Your task to perform on an android device: move a message to another label in the gmail app Image 0: 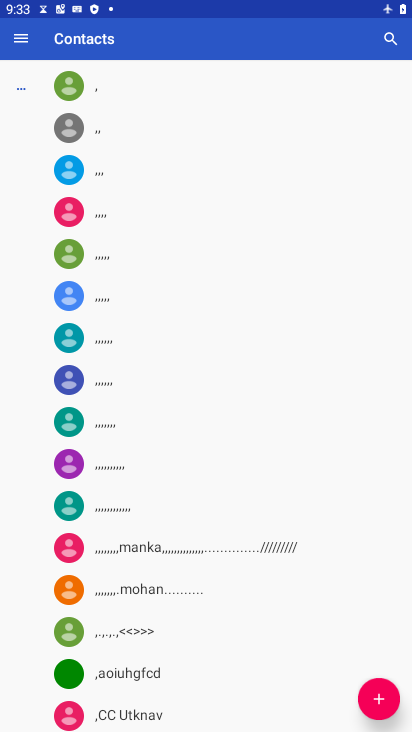
Step 0: press home button
Your task to perform on an android device: move a message to another label in the gmail app Image 1: 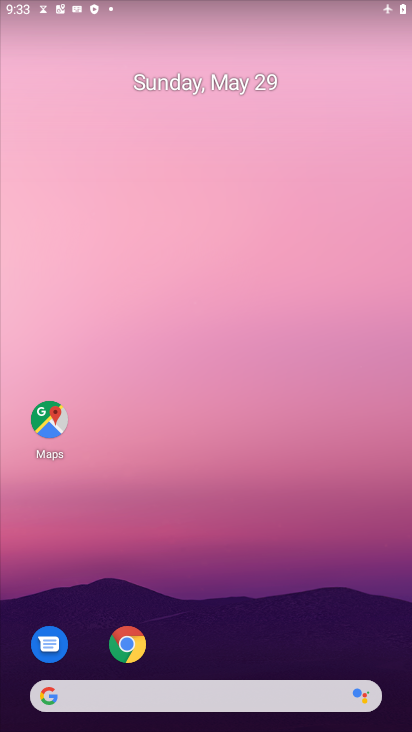
Step 1: drag from (189, 656) to (170, 255)
Your task to perform on an android device: move a message to another label in the gmail app Image 2: 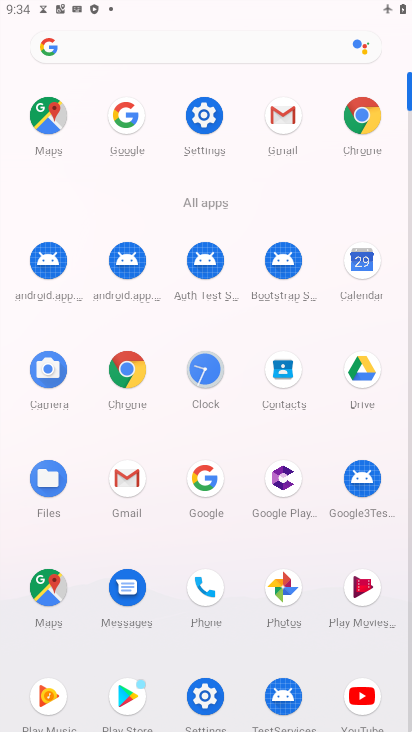
Step 2: click (128, 478)
Your task to perform on an android device: move a message to another label in the gmail app Image 3: 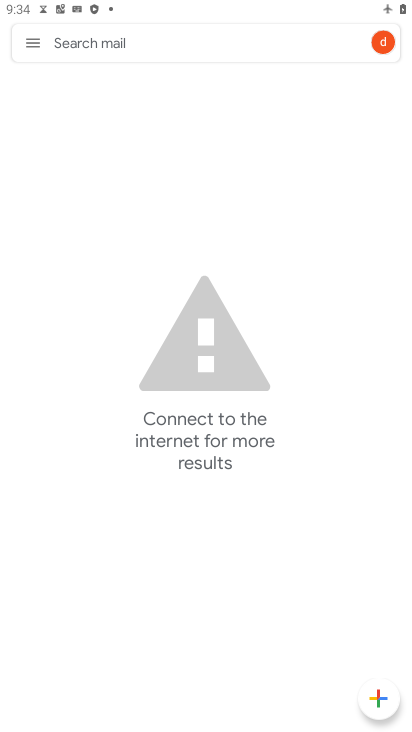
Step 3: click (31, 43)
Your task to perform on an android device: move a message to another label in the gmail app Image 4: 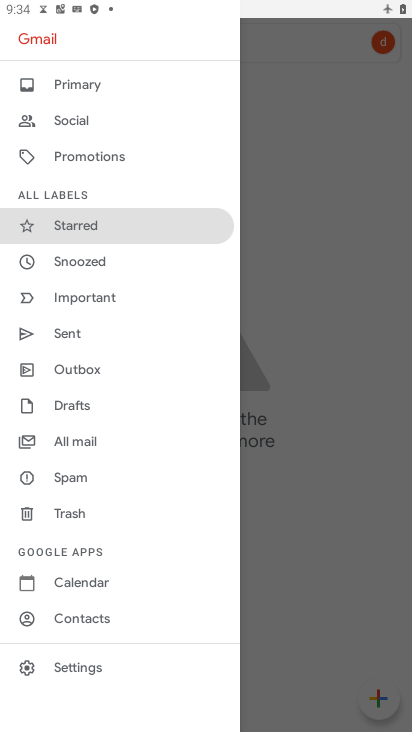
Step 4: click (112, 440)
Your task to perform on an android device: move a message to another label in the gmail app Image 5: 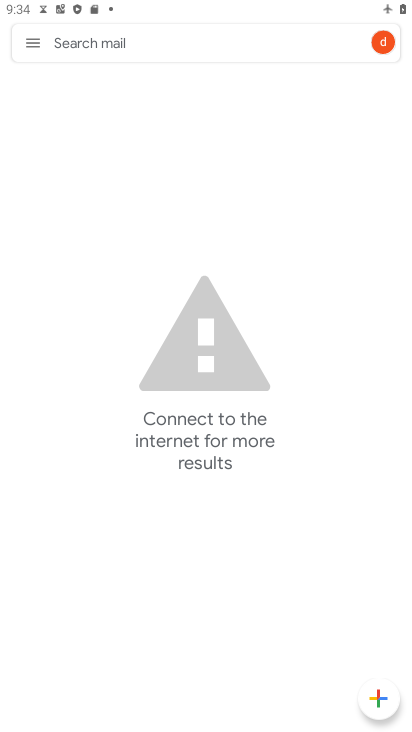
Step 5: task complete